Your task to perform on an android device: open chrome privacy settings Image 0: 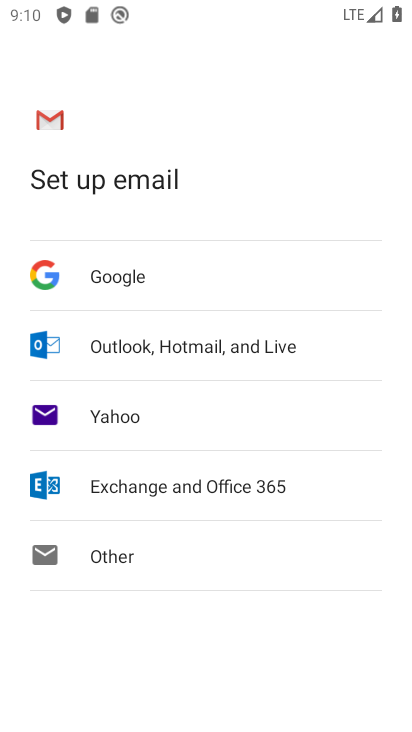
Step 0: press home button
Your task to perform on an android device: open chrome privacy settings Image 1: 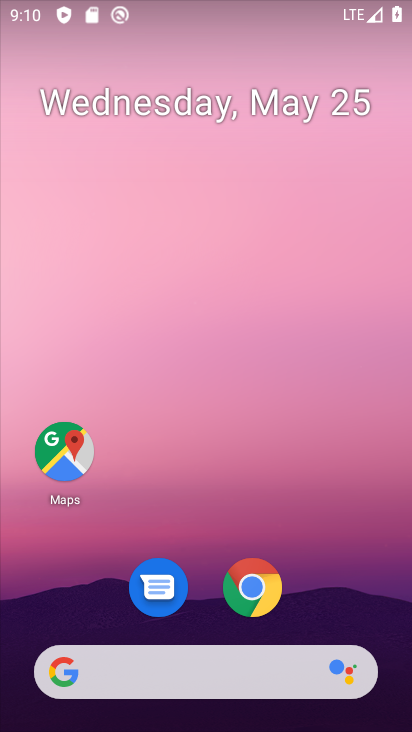
Step 1: click (258, 591)
Your task to perform on an android device: open chrome privacy settings Image 2: 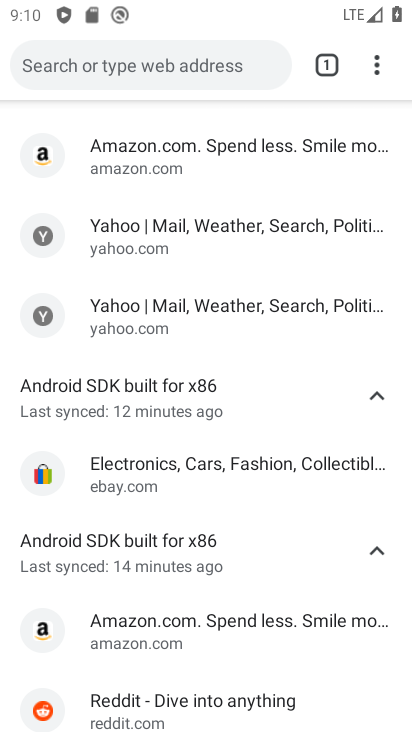
Step 2: click (387, 66)
Your task to perform on an android device: open chrome privacy settings Image 3: 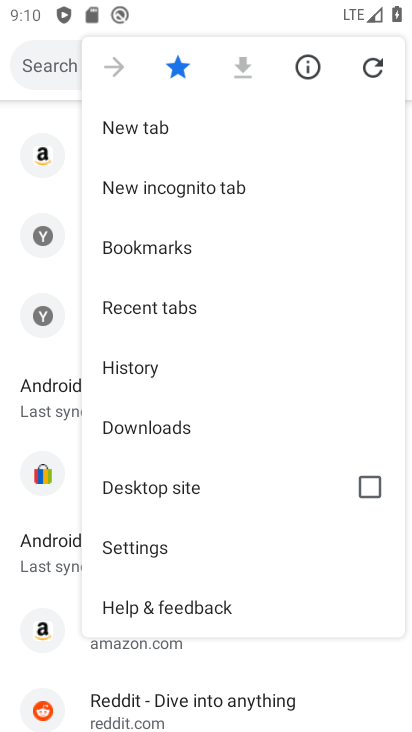
Step 3: click (146, 547)
Your task to perform on an android device: open chrome privacy settings Image 4: 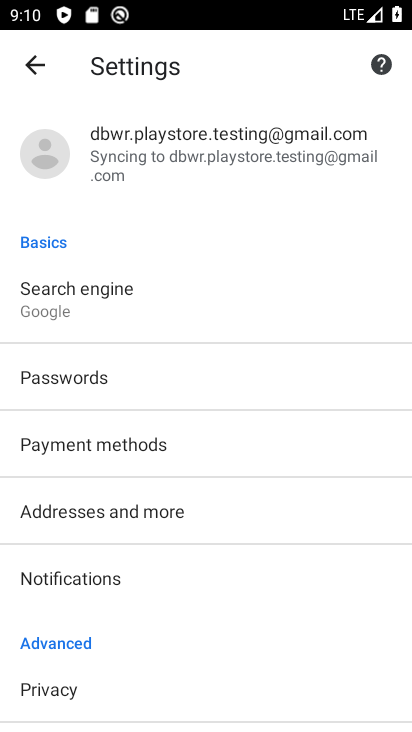
Step 4: click (86, 692)
Your task to perform on an android device: open chrome privacy settings Image 5: 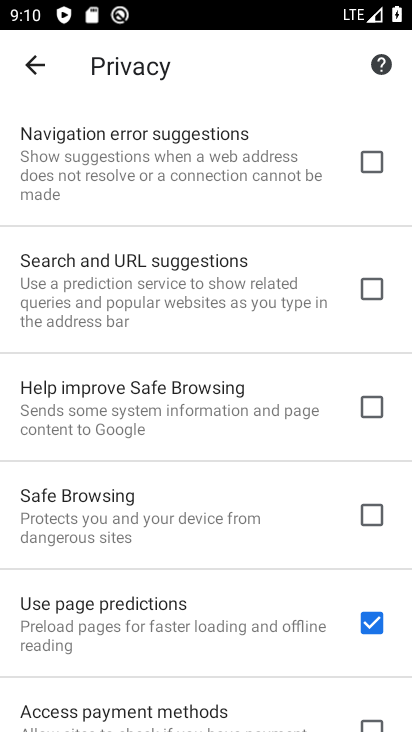
Step 5: task complete